Your task to perform on an android device: open chrome and create a bookmark for the current page Image 0: 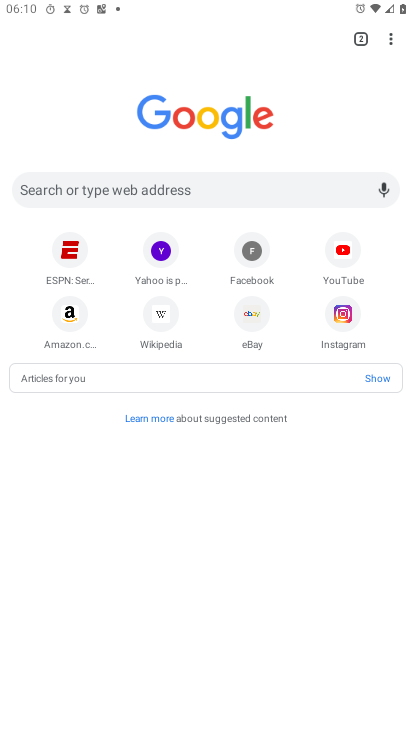
Step 0: press home button
Your task to perform on an android device: open chrome and create a bookmark for the current page Image 1: 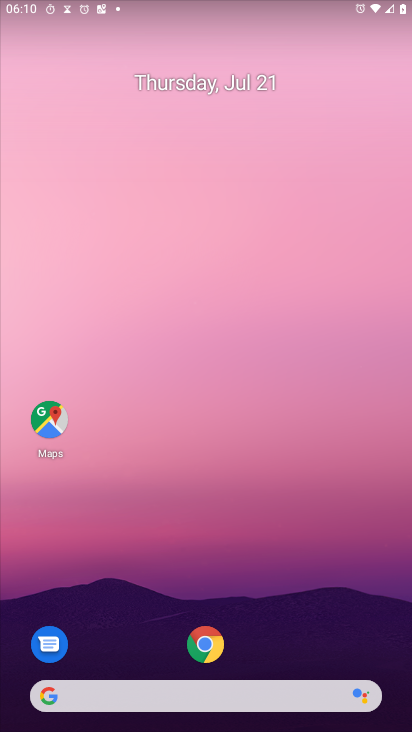
Step 1: click (217, 652)
Your task to perform on an android device: open chrome and create a bookmark for the current page Image 2: 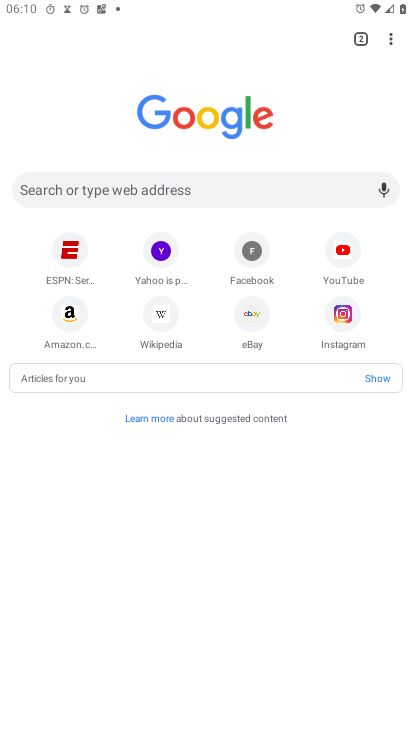
Step 2: click (391, 29)
Your task to perform on an android device: open chrome and create a bookmark for the current page Image 3: 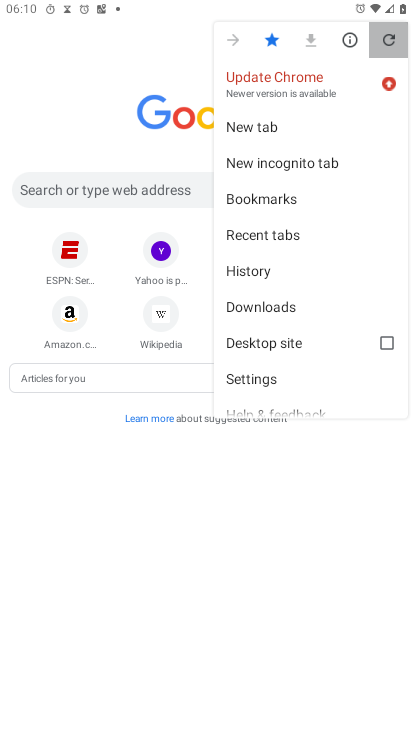
Step 3: task complete